Your task to perform on an android device: Go to sound settings Image 0: 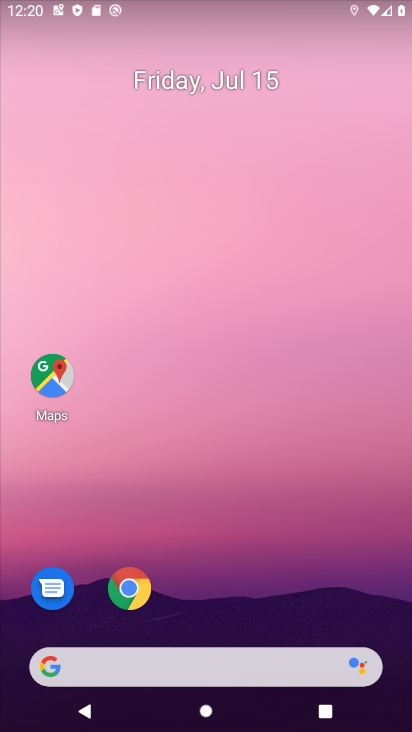
Step 0: drag from (177, 702) to (148, 7)
Your task to perform on an android device: Go to sound settings Image 1: 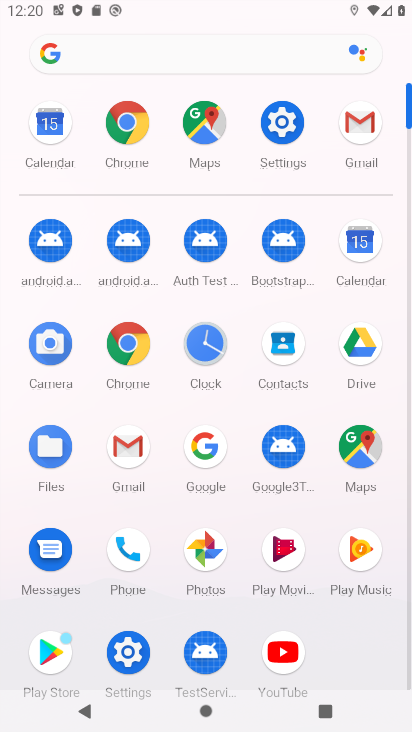
Step 1: click (287, 112)
Your task to perform on an android device: Go to sound settings Image 2: 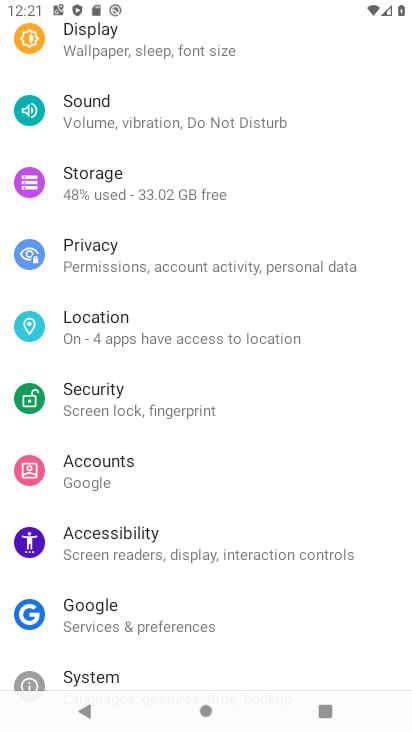
Step 2: click (297, 114)
Your task to perform on an android device: Go to sound settings Image 3: 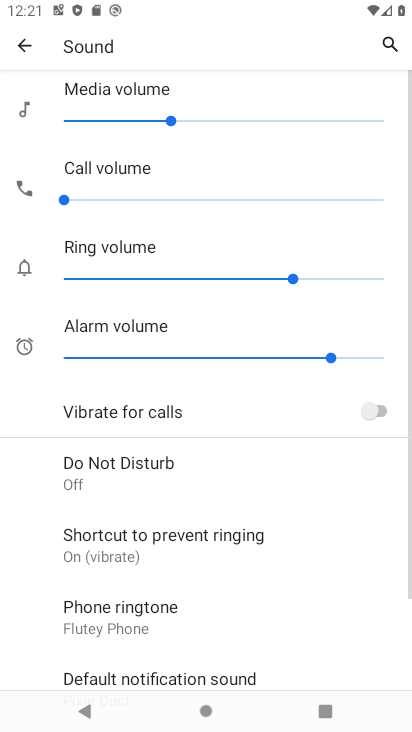
Step 3: task complete